Your task to perform on an android device: change timer sound Image 0: 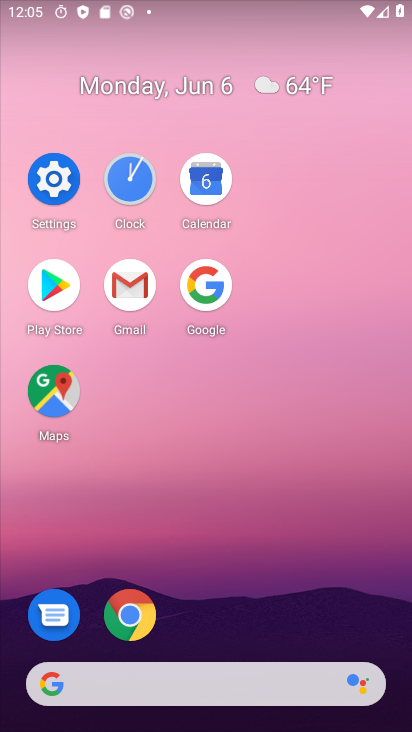
Step 0: click (138, 172)
Your task to perform on an android device: change timer sound Image 1: 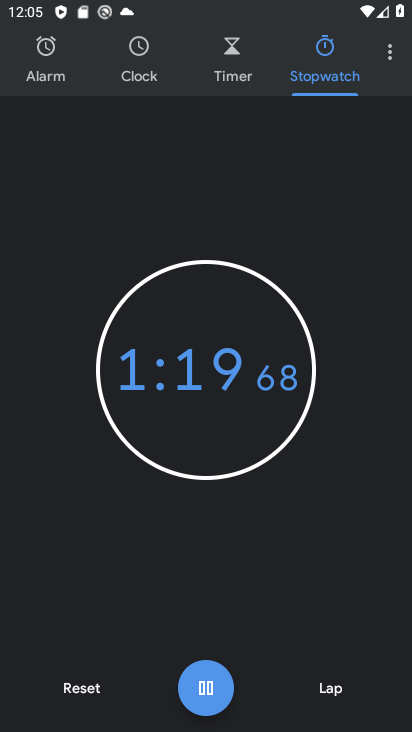
Step 1: click (228, 72)
Your task to perform on an android device: change timer sound Image 2: 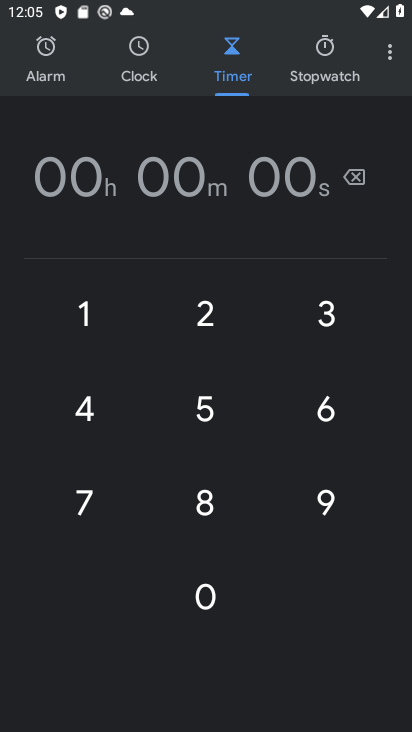
Step 2: click (220, 305)
Your task to perform on an android device: change timer sound Image 3: 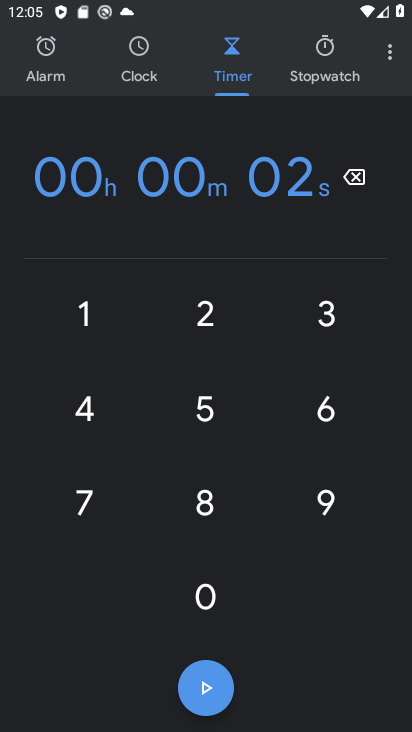
Step 3: click (220, 305)
Your task to perform on an android device: change timer sound Image 4: 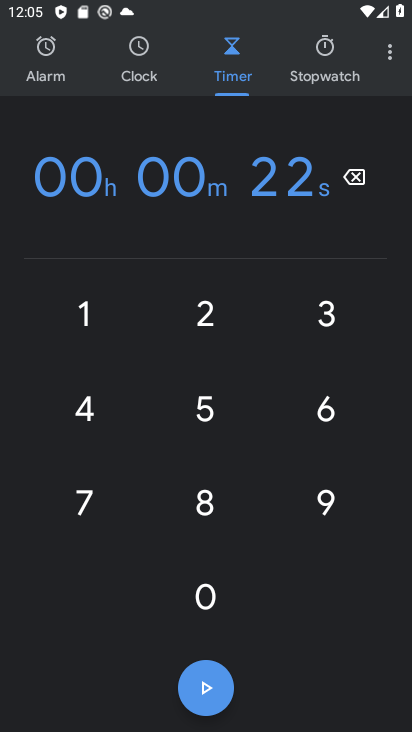
Step 4: click (196, 705)
Your task to perform on an android device: change timer sound Image 5: 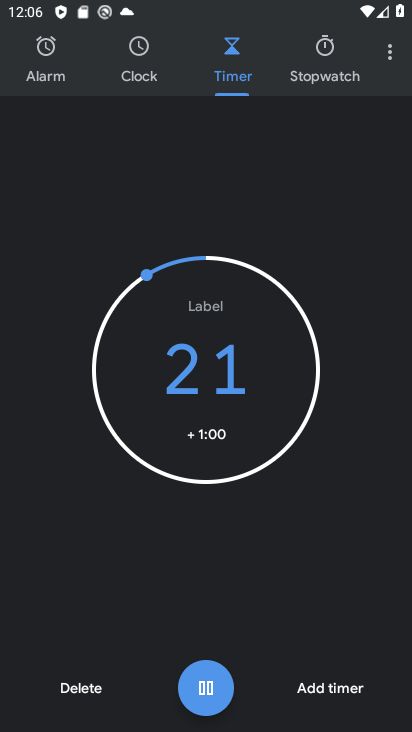
Step 5: task complete